Your task to perform on an android device: turn off priority inbox in the gmail app Image 0: 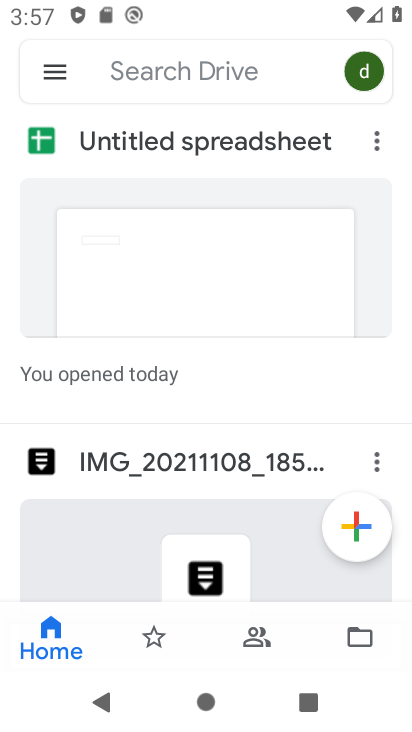
Step 0: press home button
Your task to perform on an android device: turn off priority inbox in the gmail app Image 1: 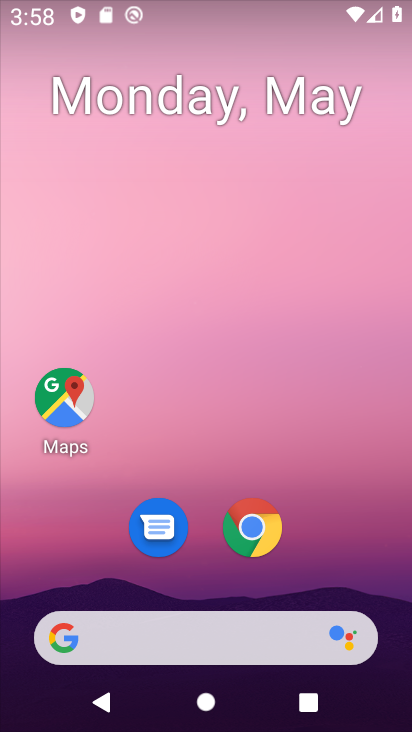
Step 1: drag from (200, 605) to (402, 82)
Your task to perform on an android device: turn off priority inbox in the gmail app Image 2: 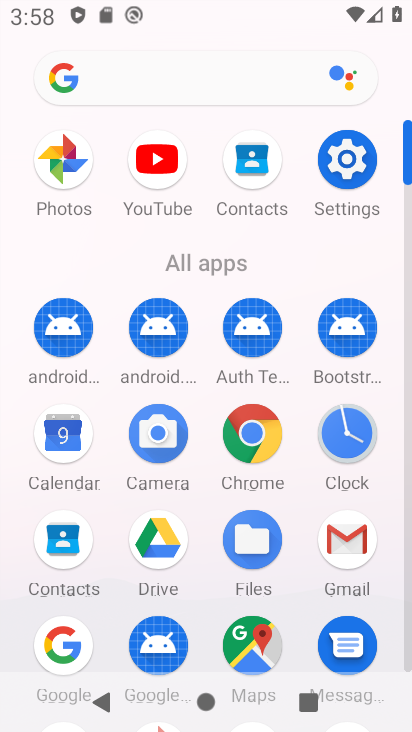
Step 2: click (357, 538)
Your task to perform on an android device: turn off priority inbox in the gmail app Image 3: 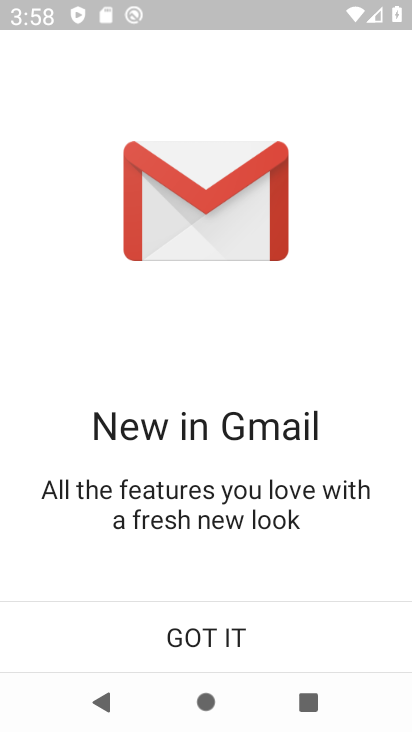
Step 3: click (315, 634)
Your task to perform on an android device: turn off priority inbox in the gmail app Image 4: 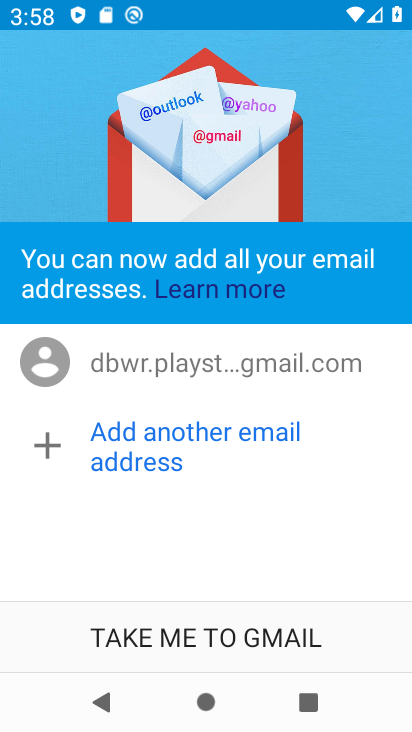
Step 4: click (228, 645)
Your task to perform on an android device: turn off priority inbox in the gmail app Image 5: 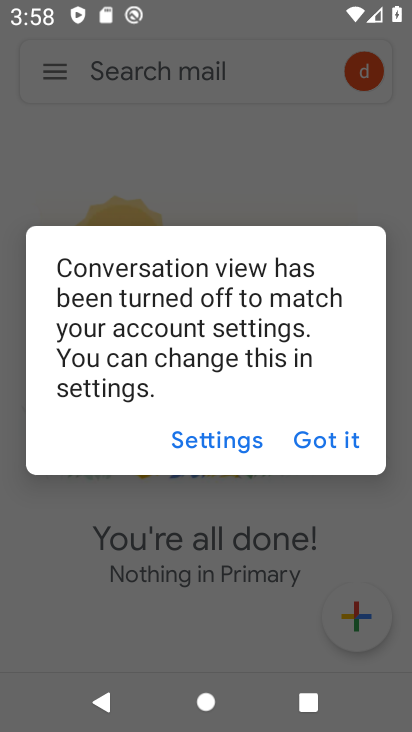
Step 5: click (333, 461)
Your task to perform on an android device: turn off priority inbox in the gmail app Image 6: 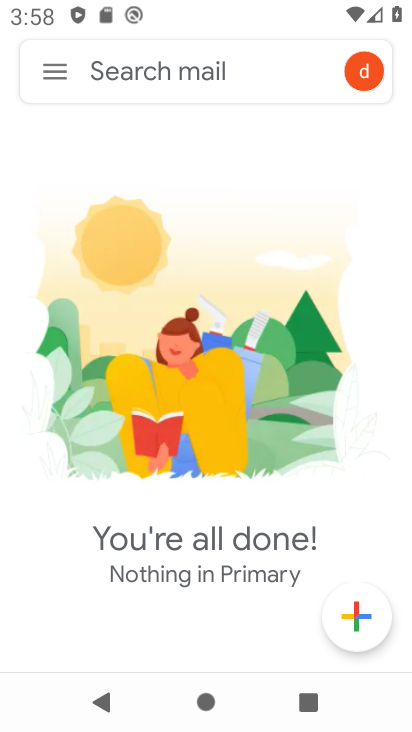
Step 6: click (57, 70)
Your task to perform on an android device: turn off priority inbox in the gmail app Image 7: 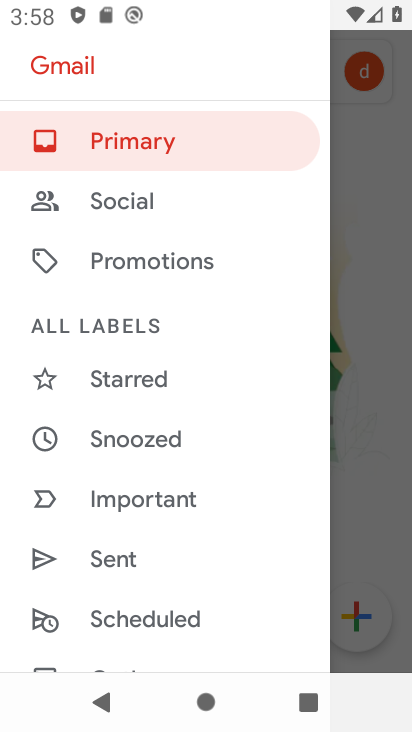
Step 7: drag from (187, 137) to (189, 79)
Your task to perform on an android device: turn off priority inbox in the gmail app Image 8: 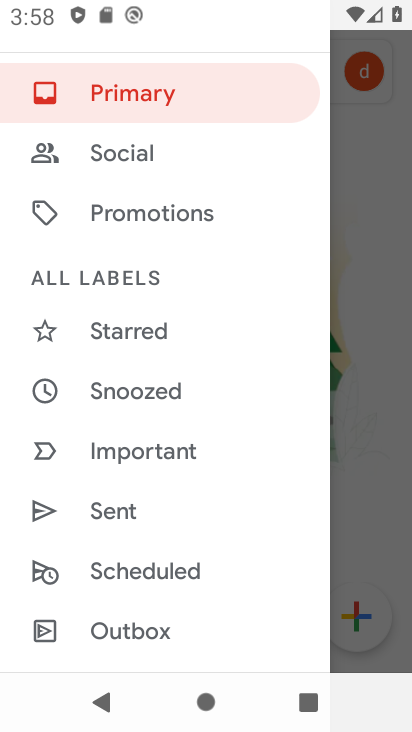
Step 8: drag from (145, 602) to (188, 109)
Your task to perform on an android device: turn off priority inbox in the gmail app Image 9: 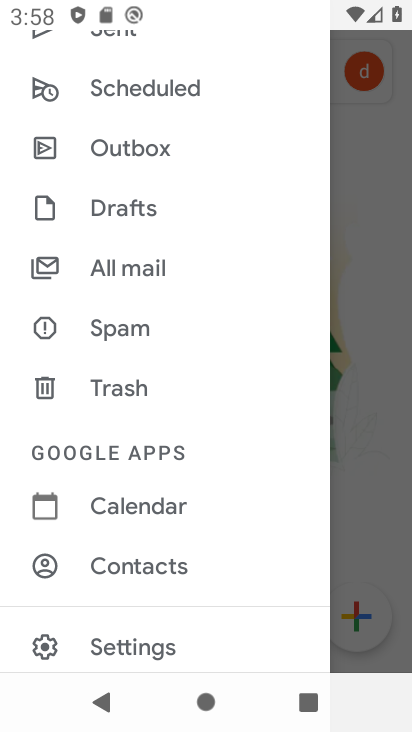
Step 9: click (125, 641)
Your task to perform on an android device: turn off priority inbox in the gmail app Image 10: 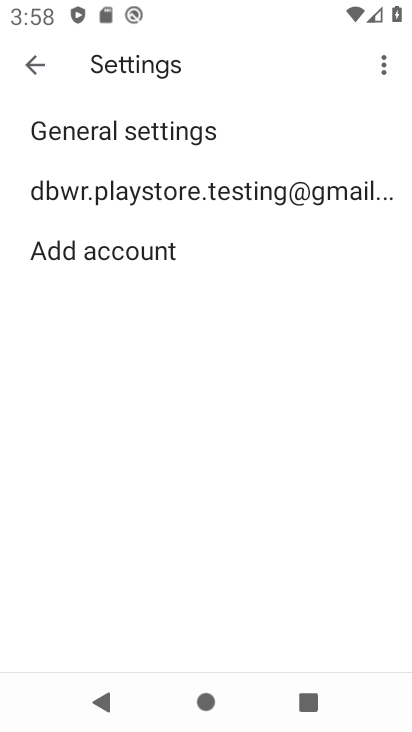
Step 10: click (208, 182)
Your task to perform on an android device: turn off priority inbox in the gmail app Image 11: 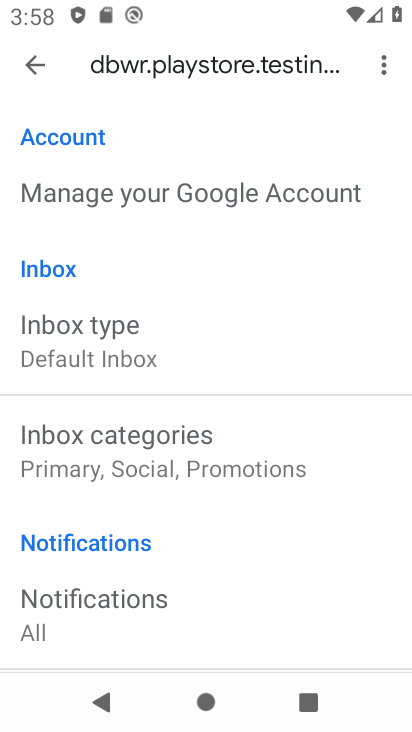
Step 11: drag from (133, 603) to (204, 167)
Your task to perform on an android device: turn off priority inbox in the gmail app Image 12: 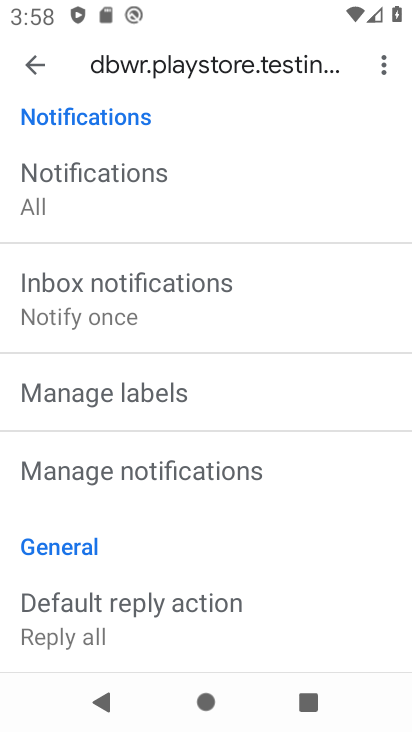
Step 12: drag from (121, 618) to (217, 215)
Your task to perform on an android device: turn off priority inbox in the gmail app Image 13: 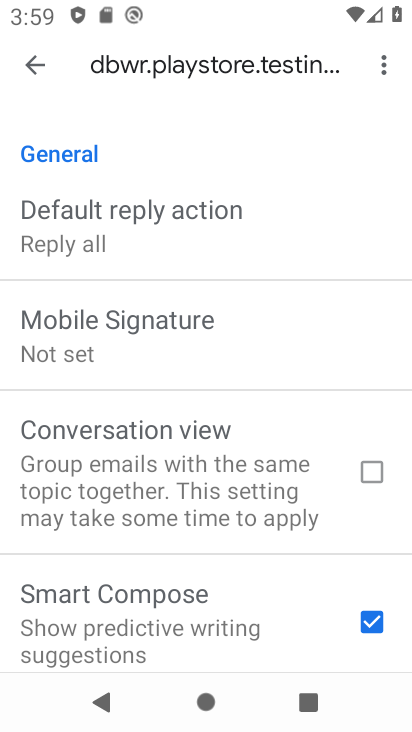
Step 13: drag from (158, 700) to (157, 258)
Your task to perform on an android device: turn off priority inbox in the gmail app Image 14: 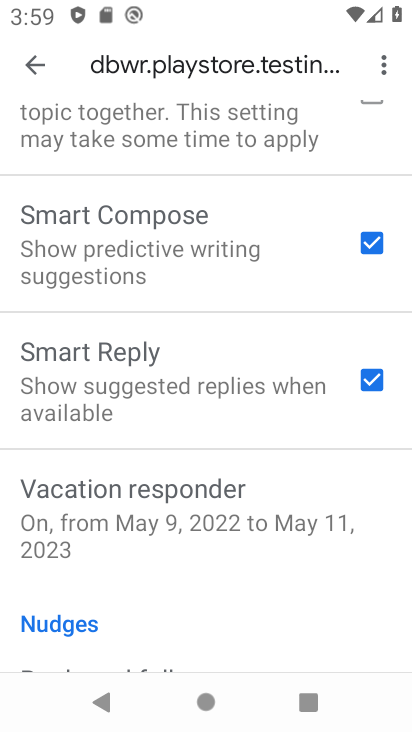
Step 14: drag from (130, 566) to (190, 51)
Your task to perform on an android device: turn off priority inbox in the gmail app Image 15: 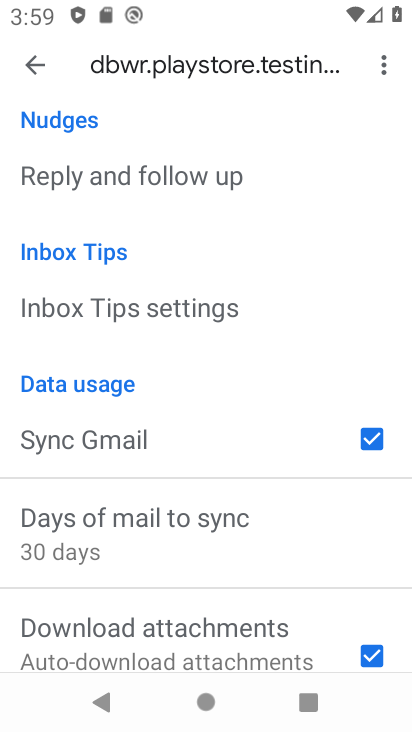
Step 15: drag from (294, 219) to (297, 653)
Your task to perform on an android device: turn off priority inbox in the gmail app Image 16: 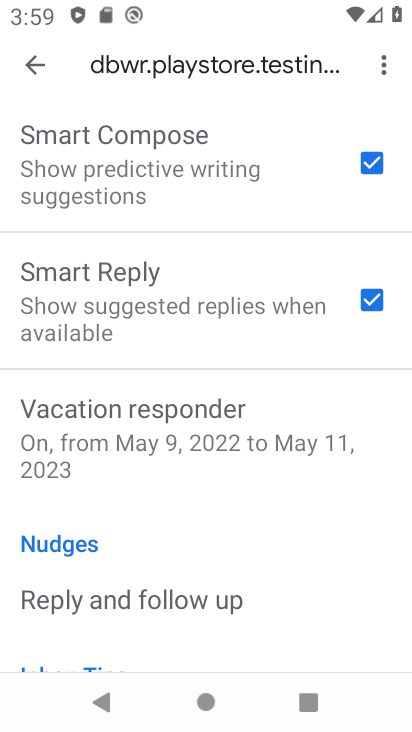
Step 16: drag from (158, 323) to (175, 664)
Your task to perform on an android device: turn off priority inbox in the gmail app Image 17: 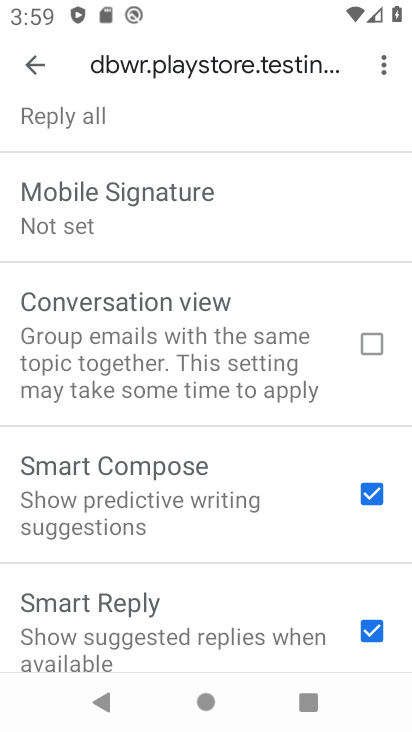
Step 17: drag from (151, 258) to (160, 537)
Your task to perform on an android device: turn off priority inbox in the gmail app Image 18: 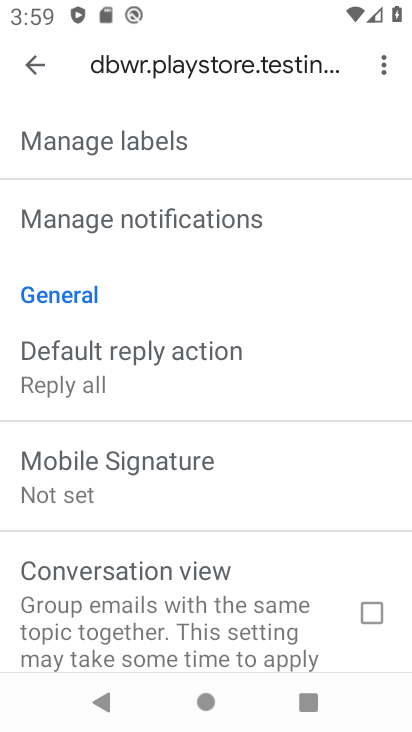
Step 18: drag from (224, 340) to (211, 644)
Your task to perform on an android device: turn off priority inbox in the gmail app Image 19: 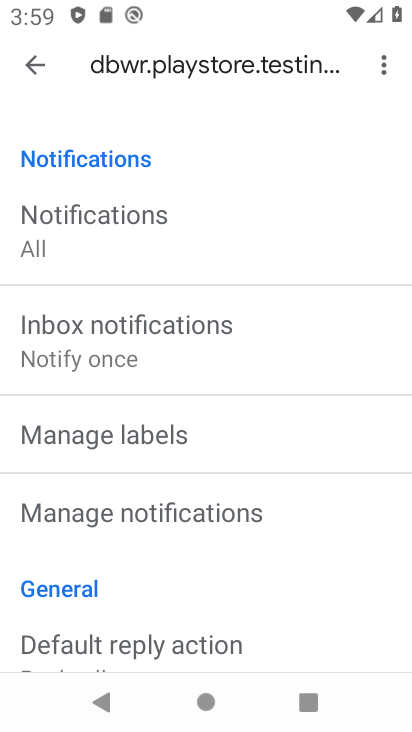
Step 19: drag from (136, 221) to (159, 526)
Your task to perform on an android device: turn off priority inbox in the gmail app Image 20: 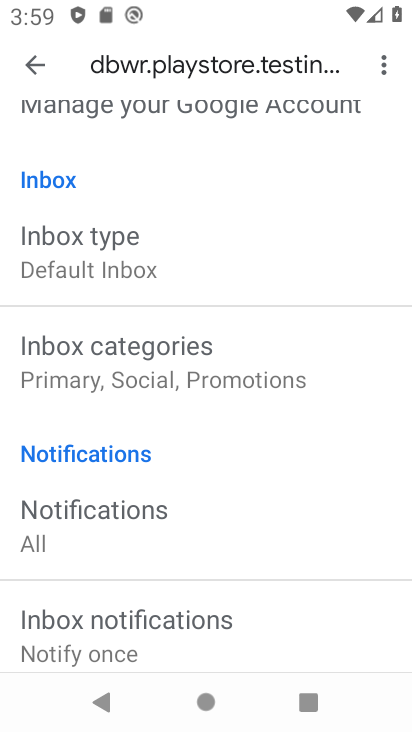
Step 20: click (203, 284)
Your task to perform on an android device: turn off priority inbox in the gmail app Image 21: 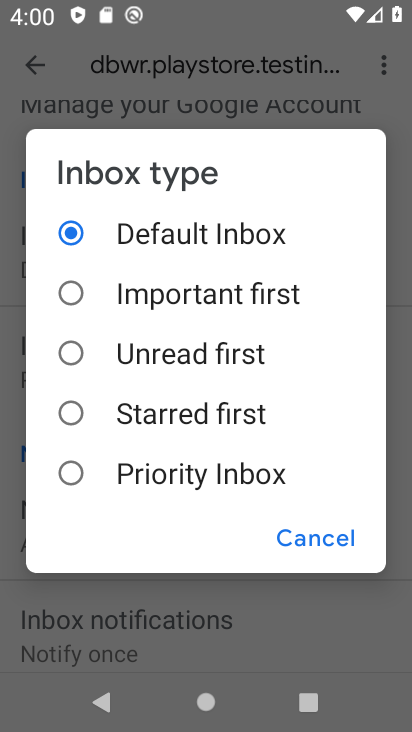
Step 21: task complete